Your task to perform on an android device: turn off airplane mode Image 0: 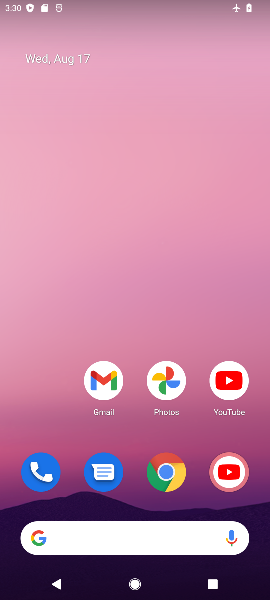
Step 0: drag from (129, 433) to (118, 57)
Your task to perform on an android device: turn off airplane mode Image 1: 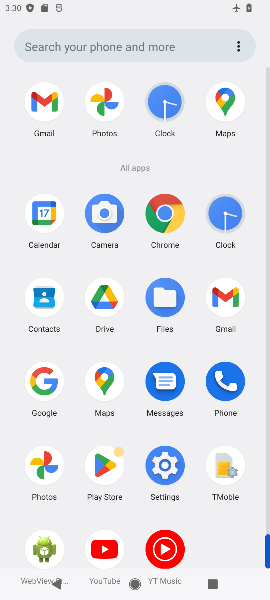
Step 1: click (155, 459)
Your task to perform on an android device: turn off airplane mode Image 2: 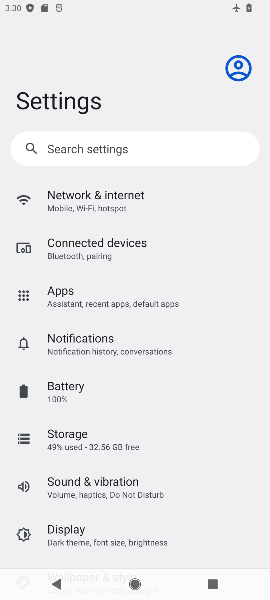
Step 2: click (104, 194)
Your task to perform on an android device: turn off airplane mode Image 3: 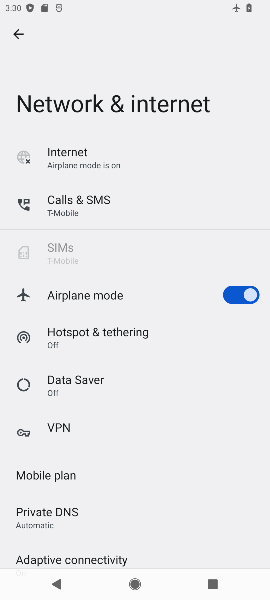
Step 3: click (226, 296)
Your task to perform on an android device: turn off airplane mode Image 4: 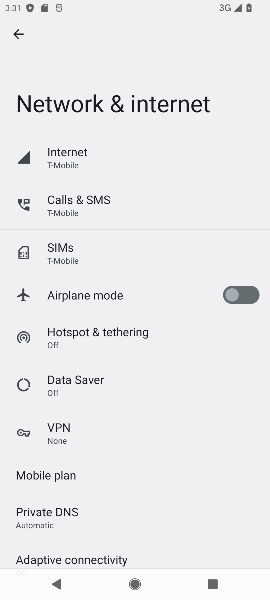
Step 4: task complete